Your task to perform on an android device: Search for pizza restaurants on Maps Image 0: 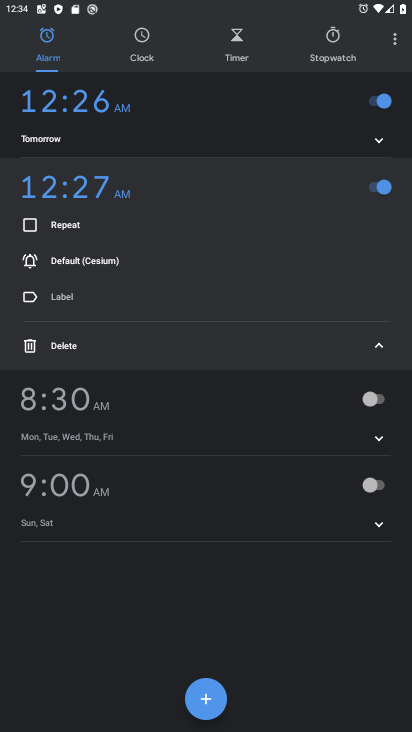
Step 0: press home button
Your task to perform on an android device: Search for pizza restaurants on Maps Image 1: 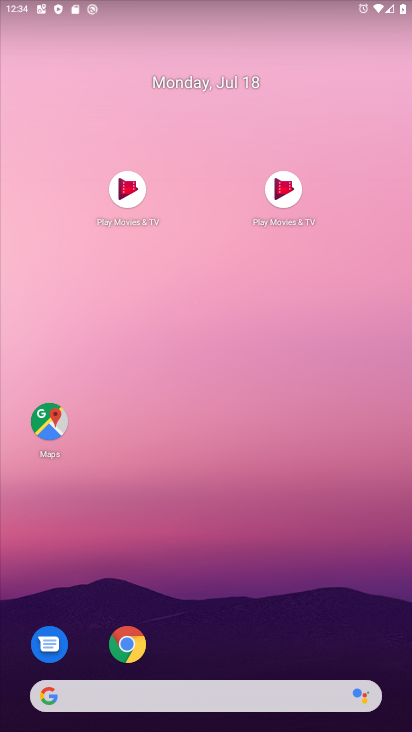
Step 1: drag from (380, 665) to (256, 206)
Your task to perform on an android device: Search for pizza restaurants on Maps Image 2: 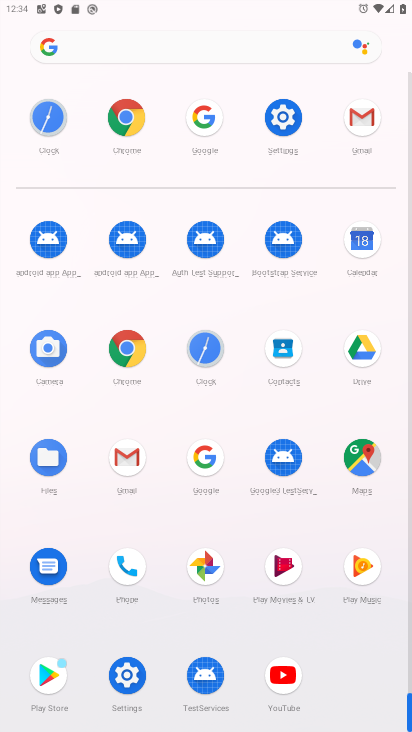
Step 2: click (364, 467)
Your task to perform on an android device: Search for pizza restaurants on Maps Image 3: 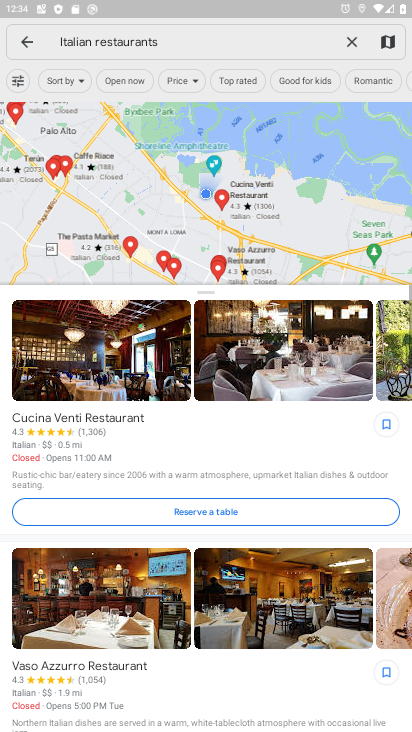
Step 3: click (199, 49)
Your task to perform on an android device: Search for pizza restaurants on Maps Image 4: 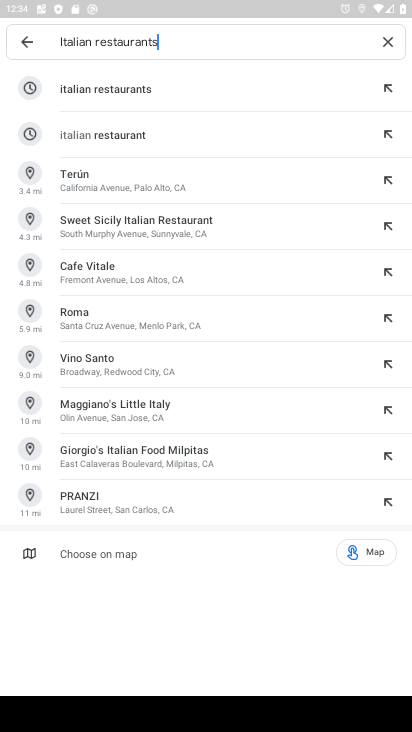
Step 4: click (391, 36)
Your task to perform on an android device: Search for pizza restaurants on Maps Image 5: 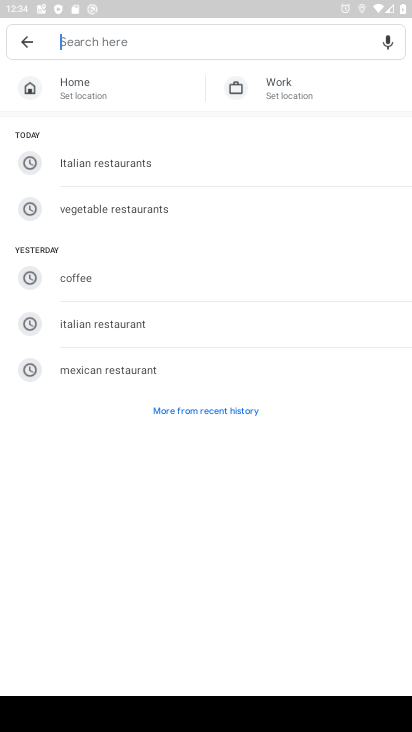
Step 5: type "pizza restaurants"
Your task to perform on an android device: Search for pizza restaurants on Maps Image 6: 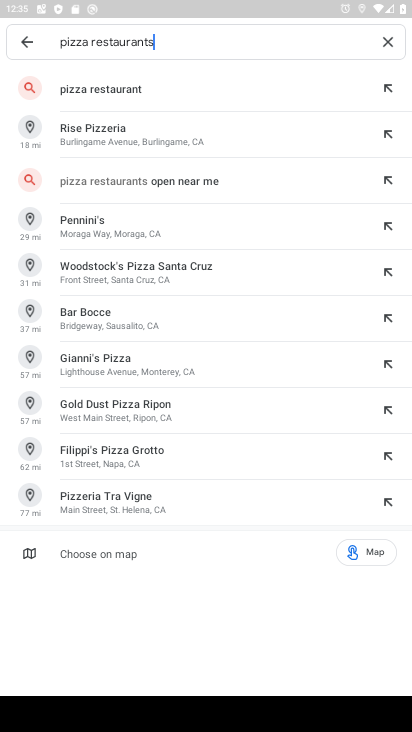
Step 6: press enter
Your task to perform on an android device: Search for pizza restaurants on Maps Image 7: 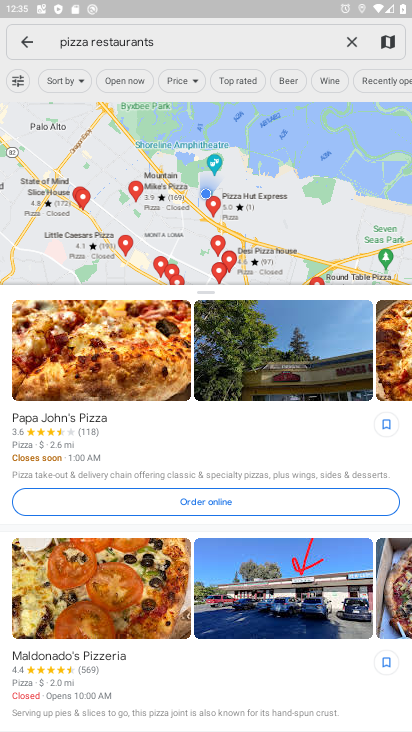
Step 7: task complete